Your task to perform on an android device: stop showing notifications on the lock screen Image 0: 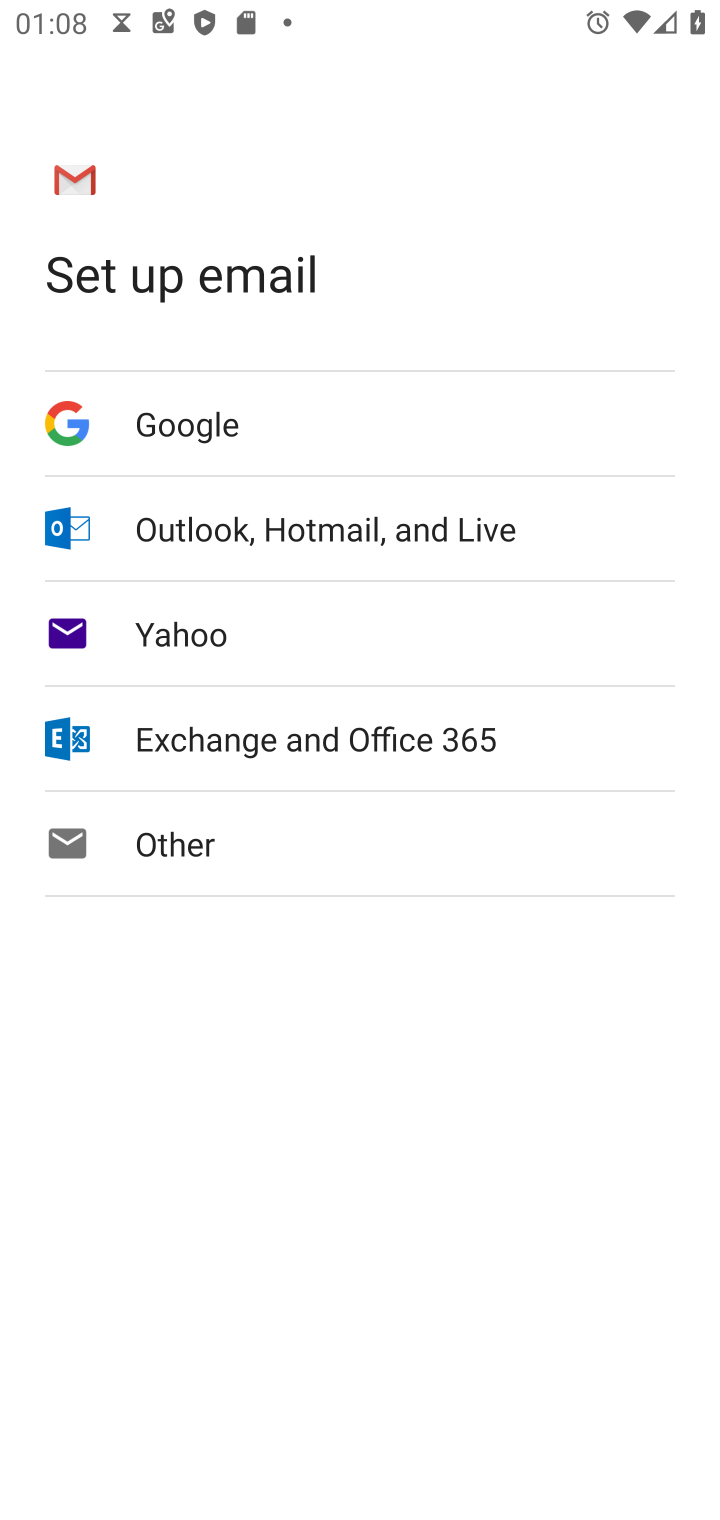
Step 0: press home button
Your task to perform on an android device: stop showing notifications on the lock screen Image 1: 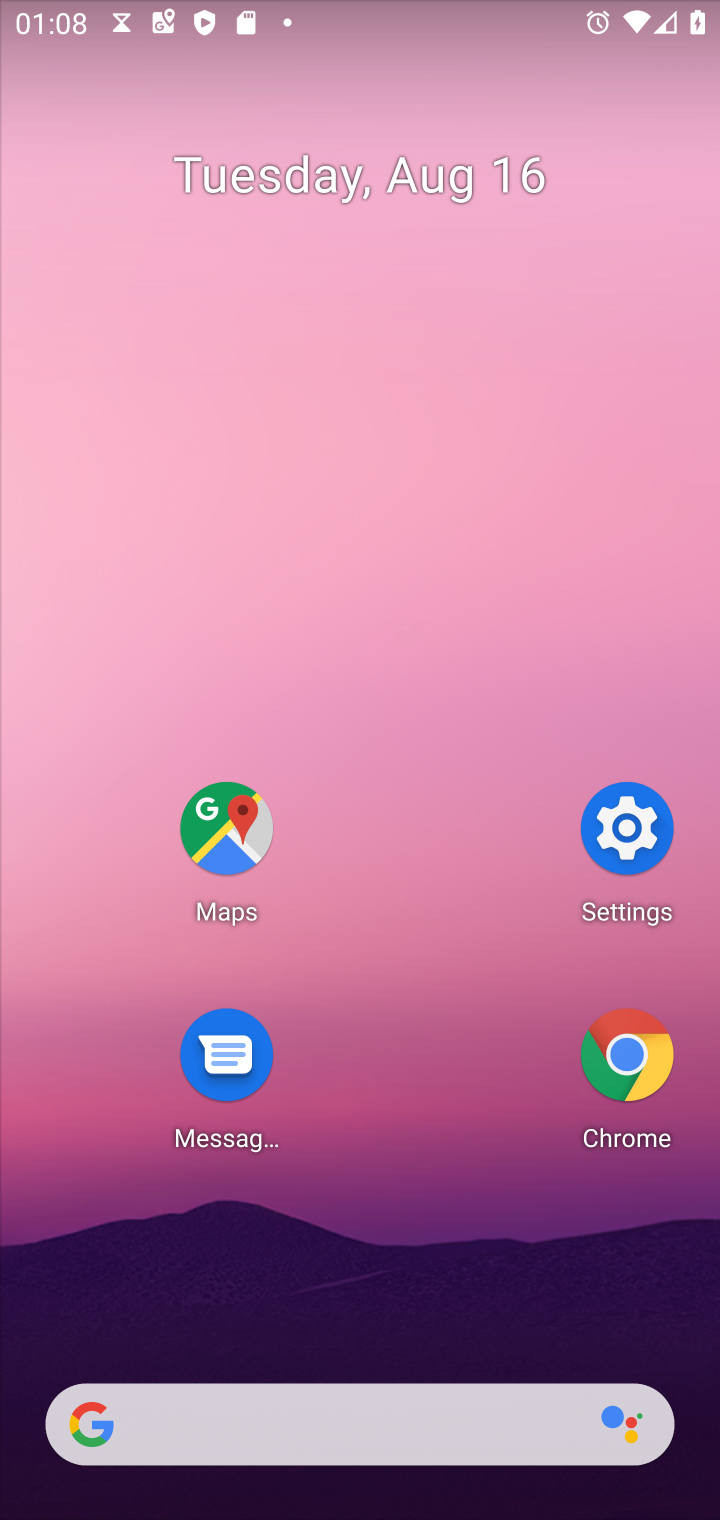
Step 1: click (632, 837)
Your task to perform on an android device: stop showing notifications on the lock screen Image 2: 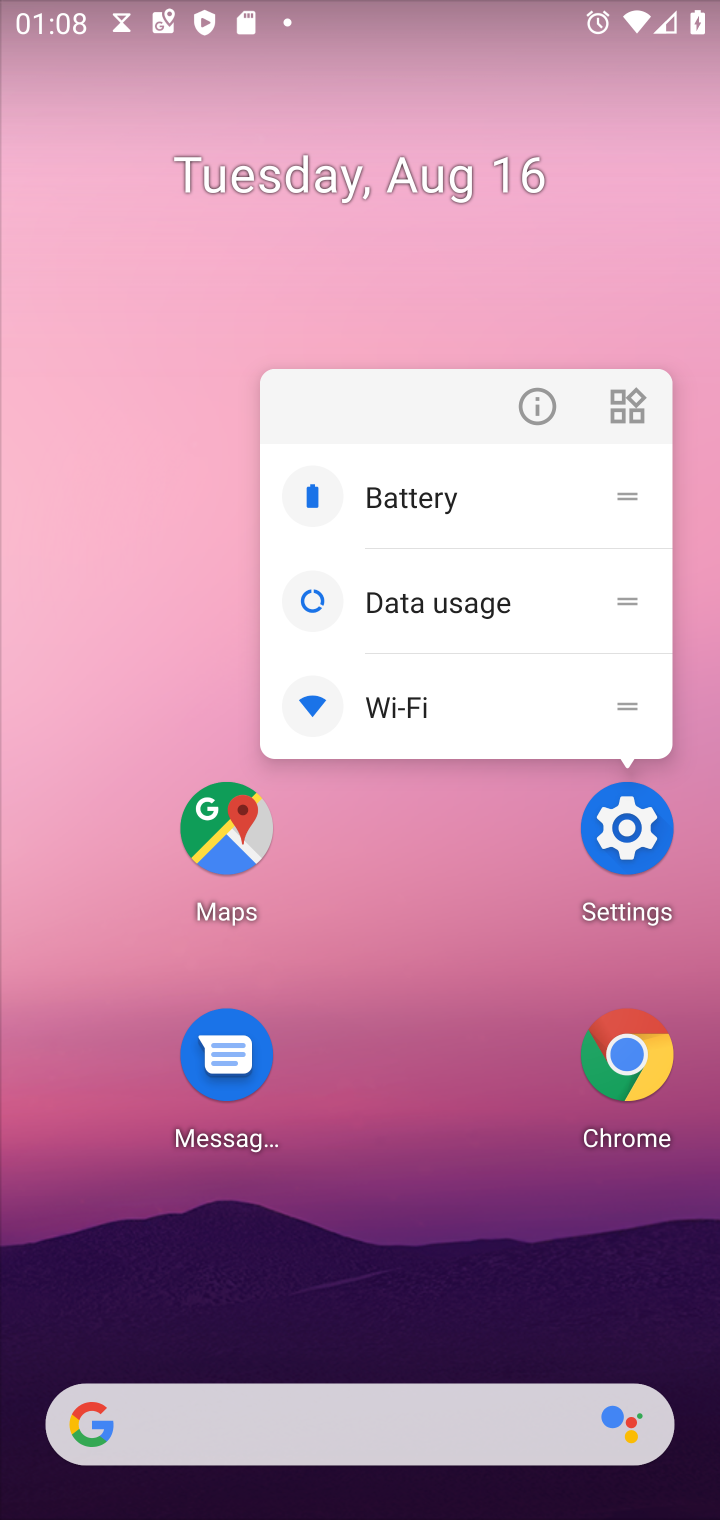
Step 2: click (634, 837)
Your task to perform on an android device: stop showing notifications on the lock screen Image 3: 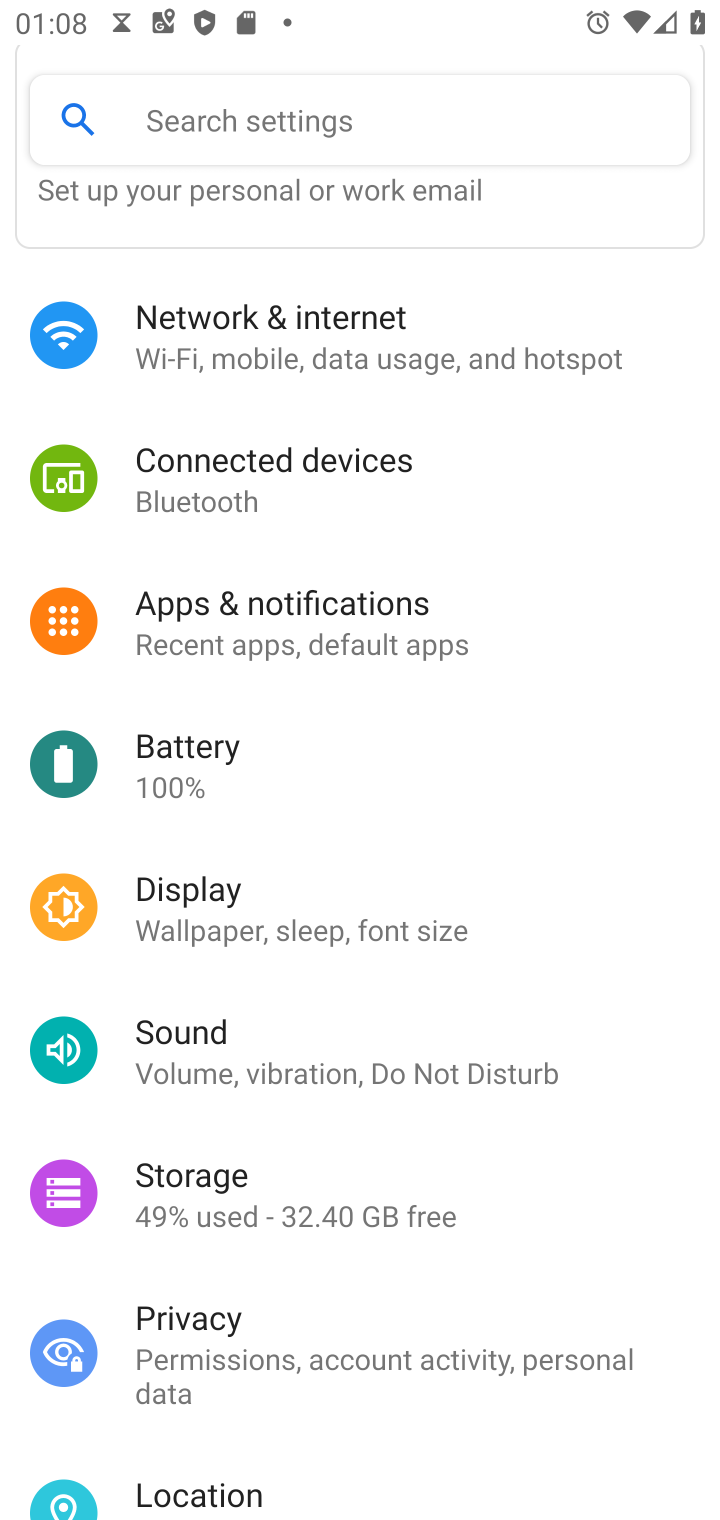
Step 3: click (297, 606)
Your task to perform on an android device: stop showing notifications on the lock screen Image 4: 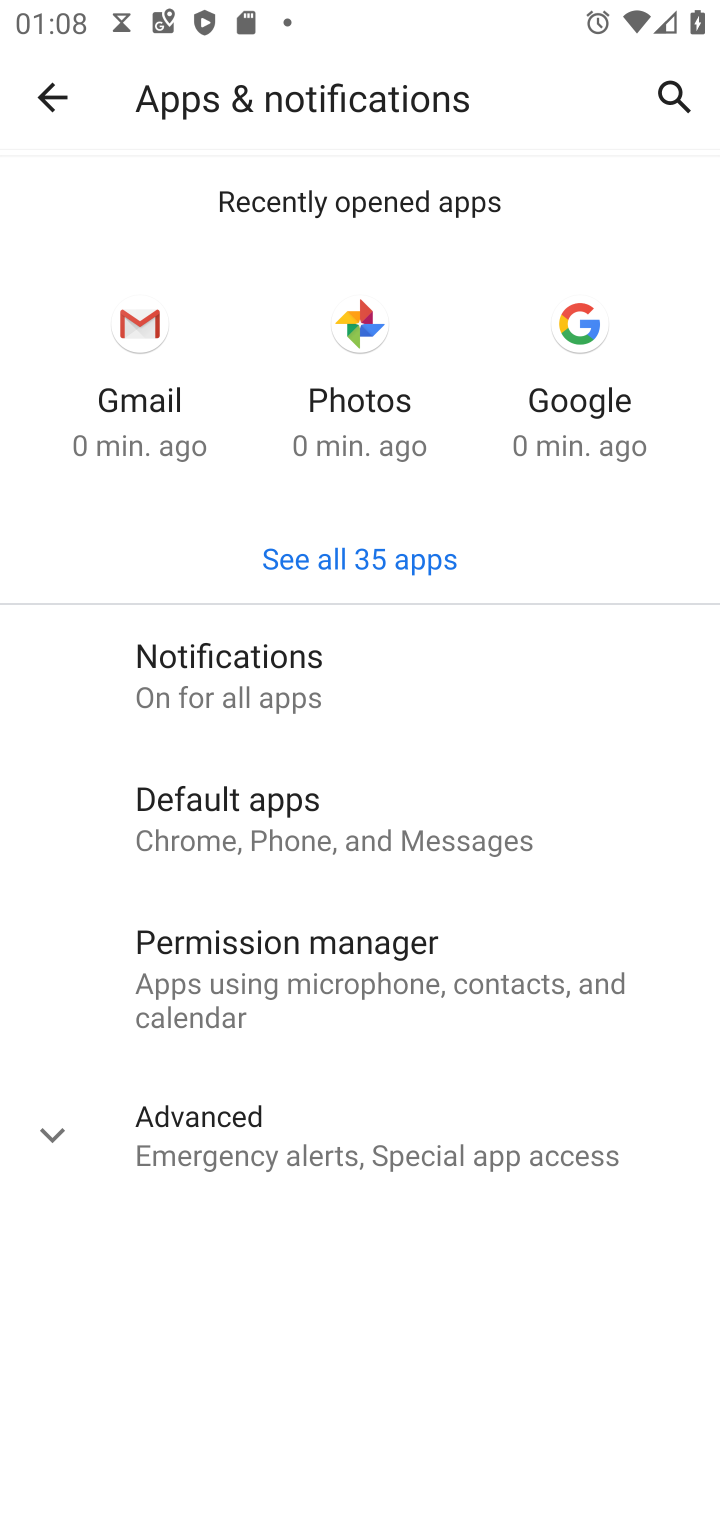
Step 4: click (241, 678)
Your task to perform on an android device: stop showing notifications on the lock screen Image 5: 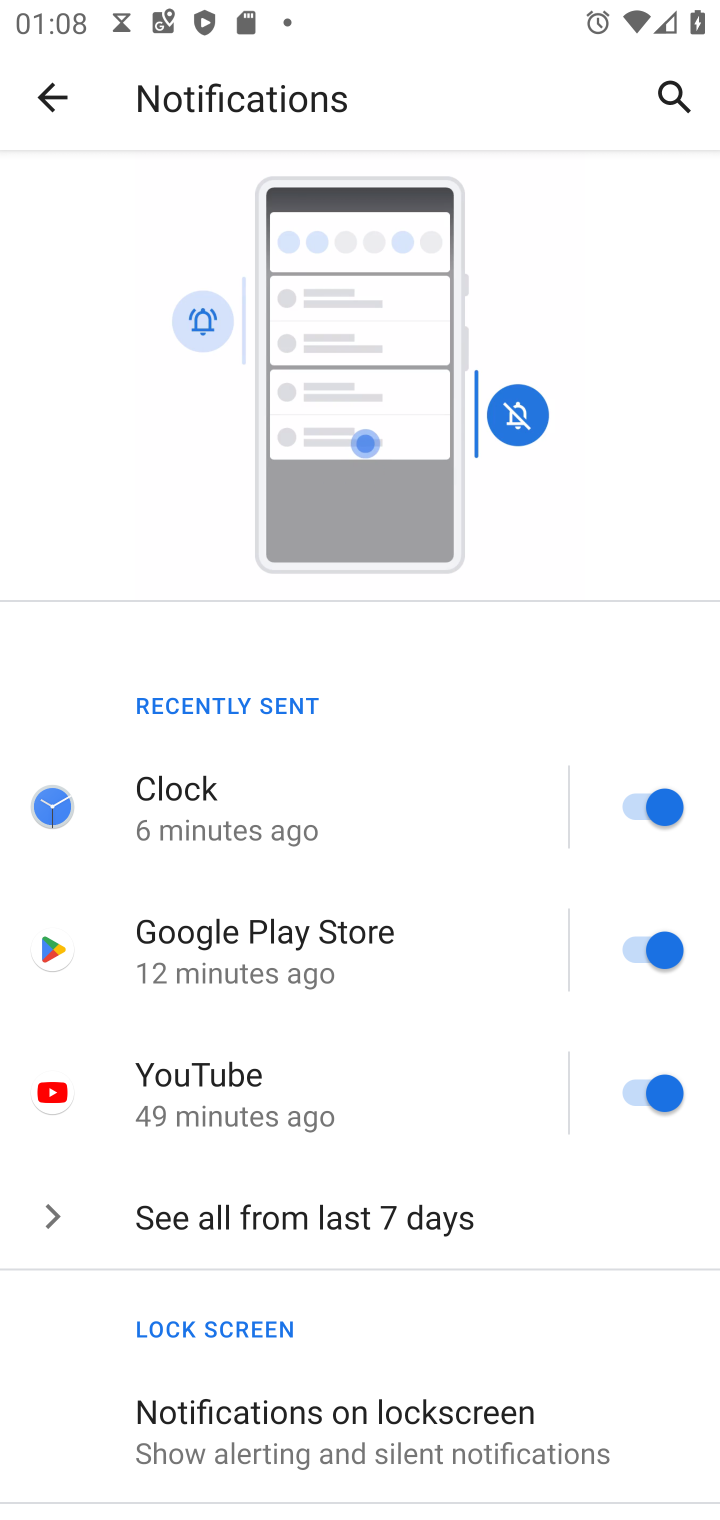
Step 5: drag from (519, 1301) to (608, 148)
Your task to perform on an android device: stop showing notifications on the lock screen Image 6: 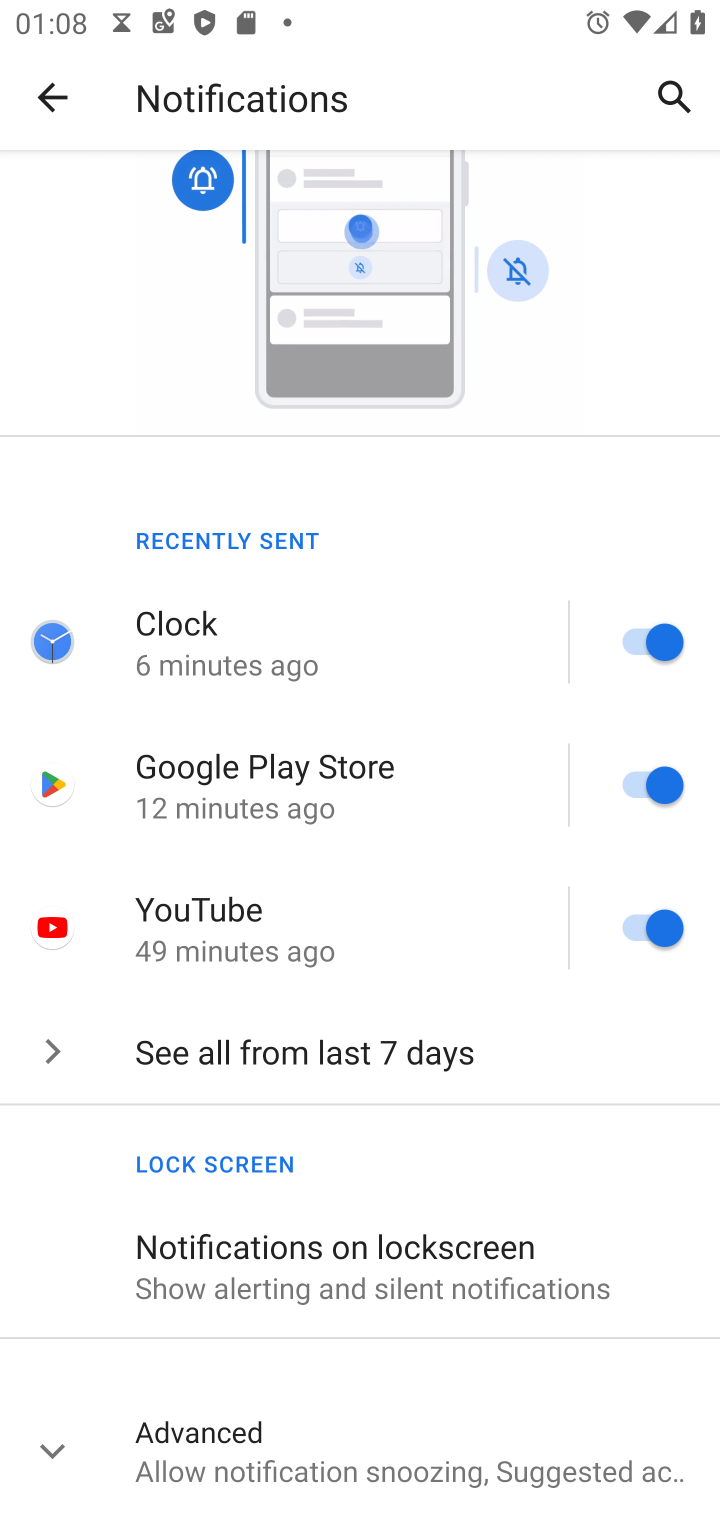
Step 6: click (425, 1273)
Your task to perform on an android device: stop showing notifications on the lock screen Image 7: 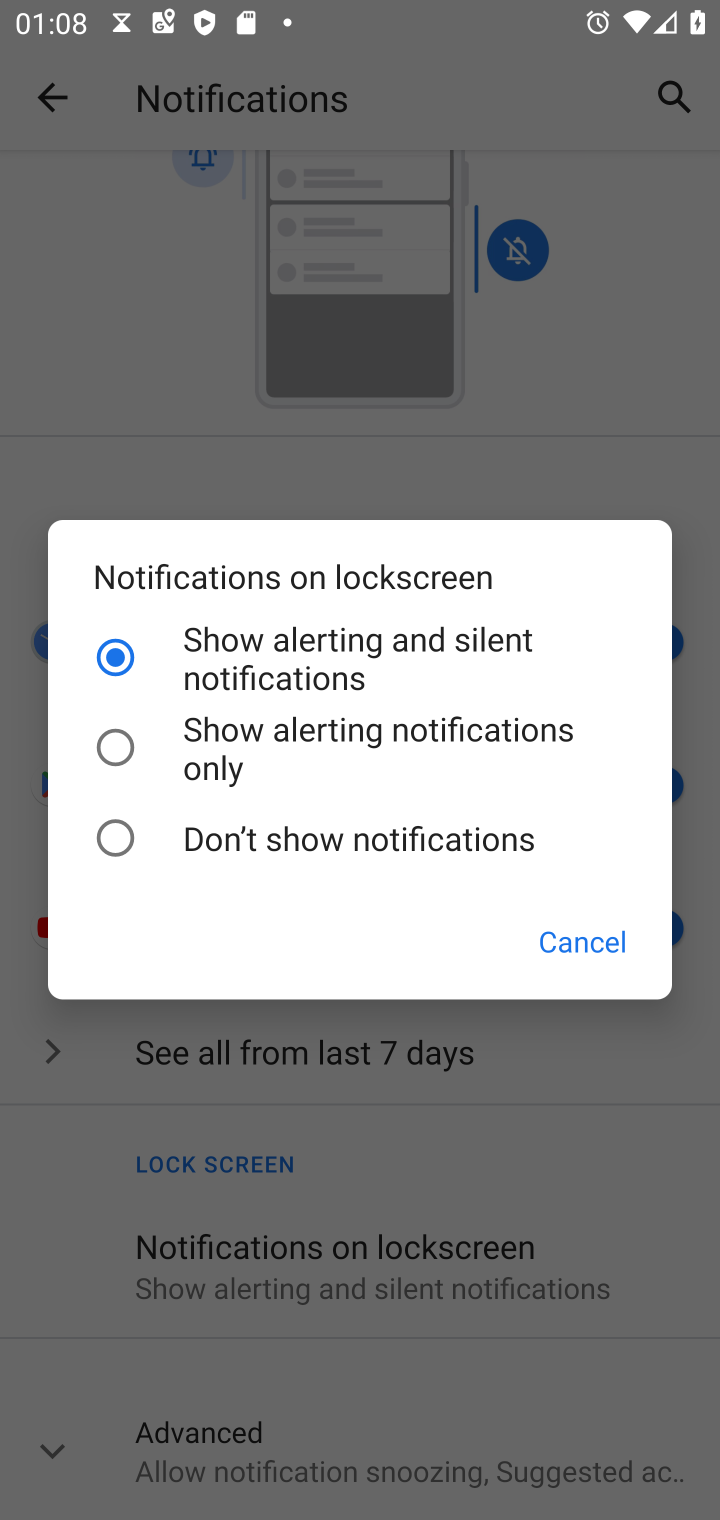
Step 7: click (107, 827)
Your task to perform on an android device: stop showing notifications on the lock screen Image 8: 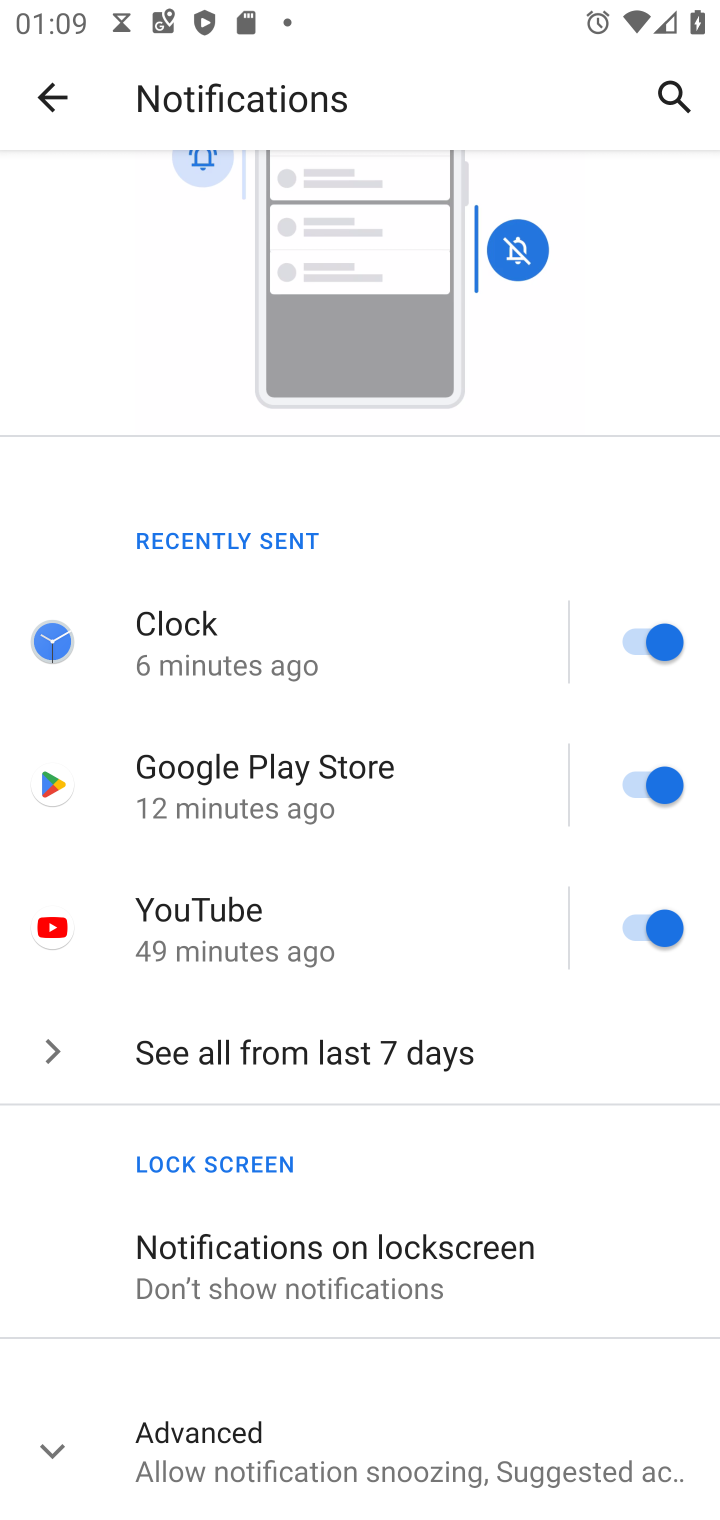
Step 8: task complete